Your task to perform on an android device: turn off sleep mode Image 0: 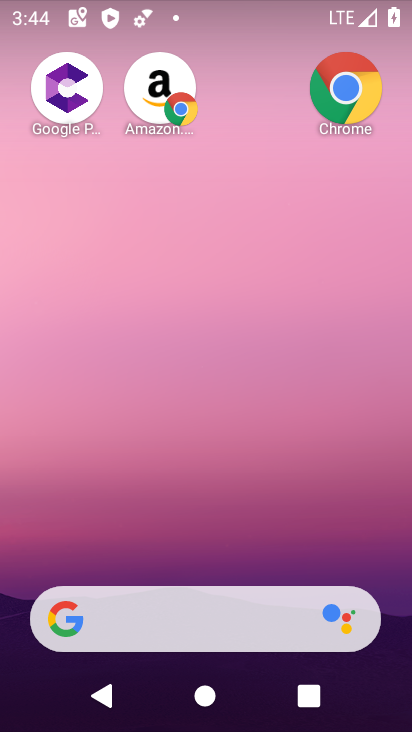
Step 0: drag from (265, 503) to (323, 108)
Your task to perform on an android device: turn off sleep mode Image 1: 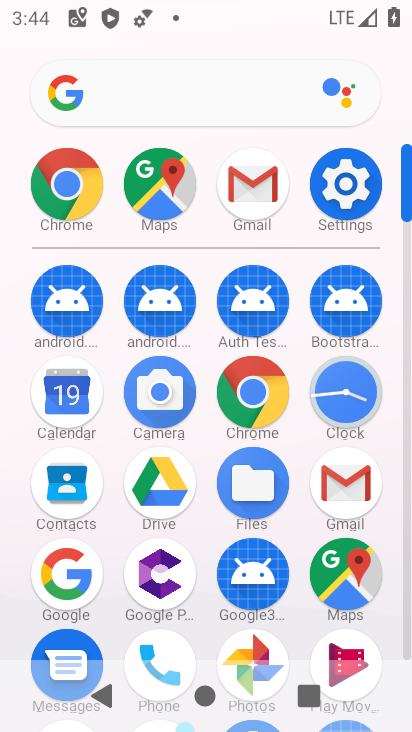
Step 1: click (351, 183)
Your task to perform on an android device: turn off sleep mode Image 2: 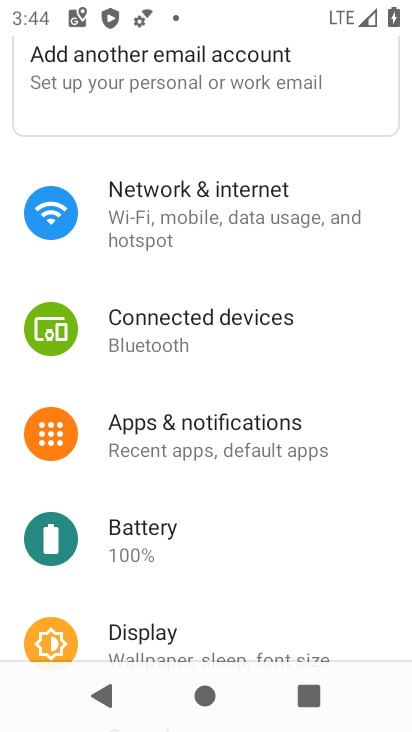
Step 2: drag from (261, 368) to (290, 281)
Your task to perform on an android device: turn off sleep mode Image 3: 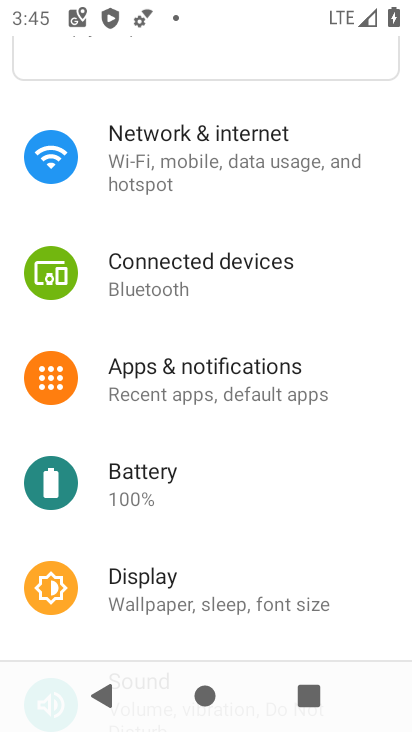
Step 3: drag from (244, 536) to (244, 376)
Your task to perform on an android device: turn off sleep mode Image 4: 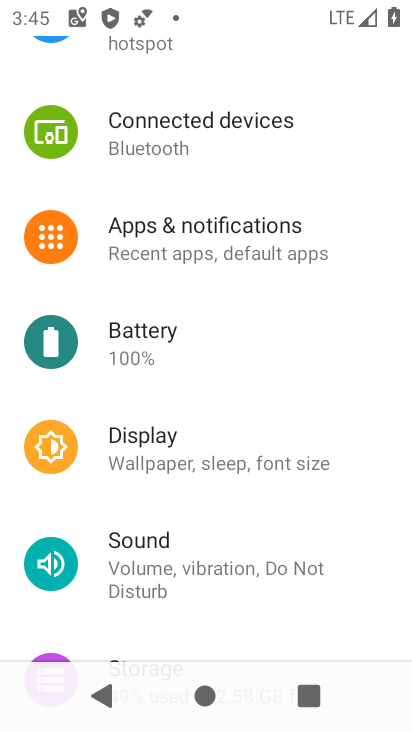
Step 4: drag from (234, 408) to (230, 296)
Your task to perform on an android device: turn off sleep mode Image 5: 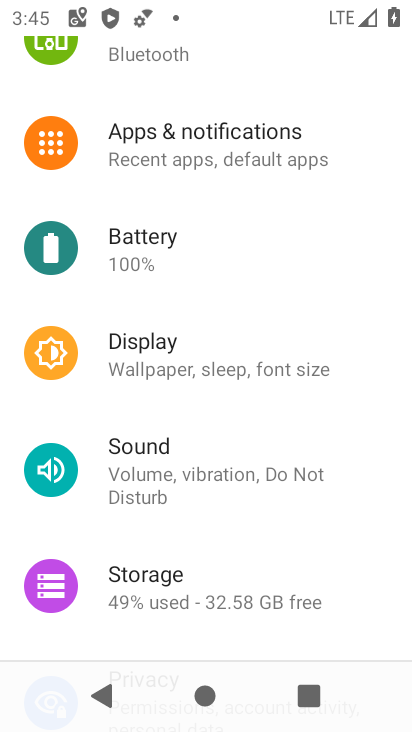
Step 5: click (196, 351)
Your task to perform on an android device: turn off sleep mode Image 6: 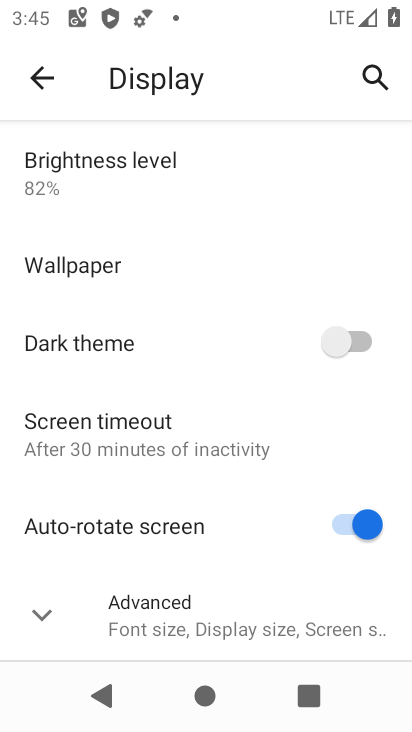
Step 6: drag from (238, 522) to (237, 378)
Your task to perform on an android device: turn off sleep mode Image 7: 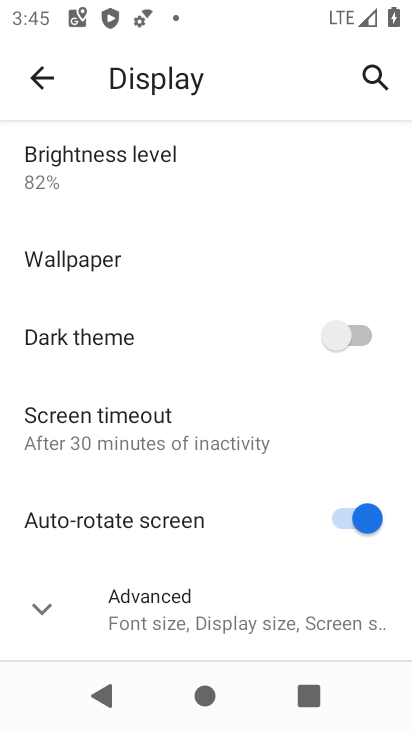
Step 7: click (160, 588)
Your task to perform on an android device: turn off sleep mode Image 8: 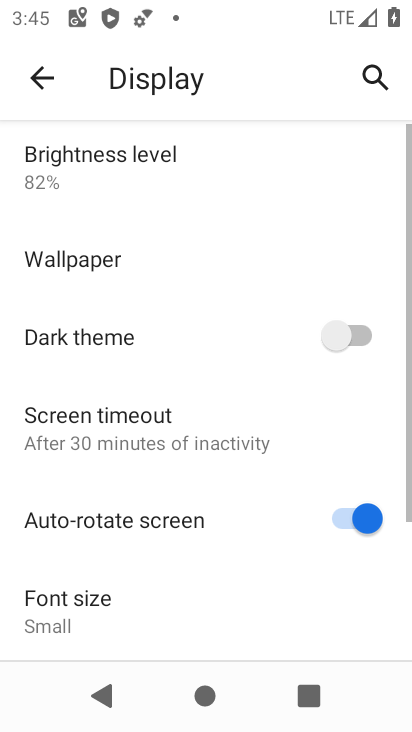
Step 8: task complete